Your task to perform on an android device: Go to Wikipedia Image 0: 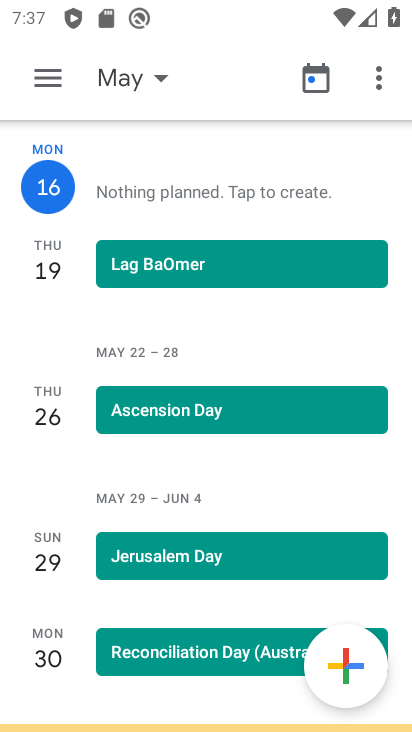
Step 0: press home button
Your task to perform on an android device: Go to Wikipedia Image 1: 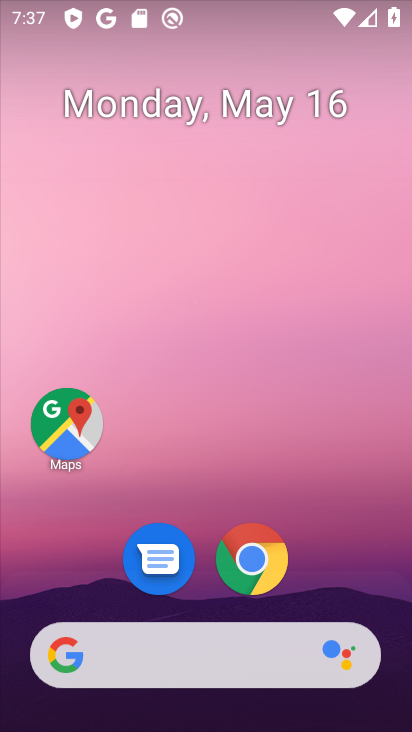
Step 1: drag from (344, 511) to (379, 162)
Your task to perform on an android device: Go to Wikipedia Image 2: 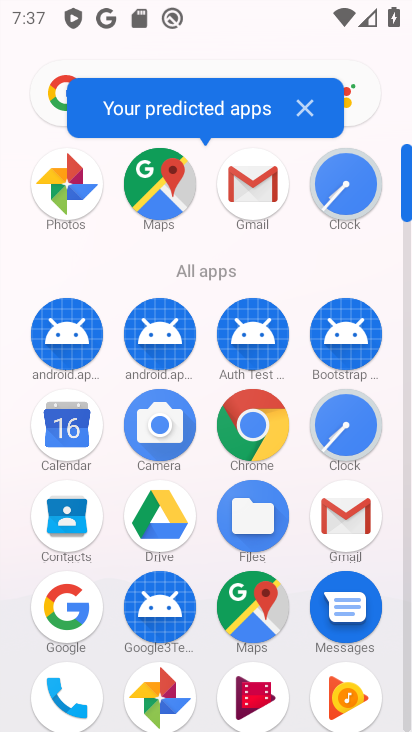
Step 2: click (260, 411)
Your task to perform on an android device: Go to Wikipedia Image 3: 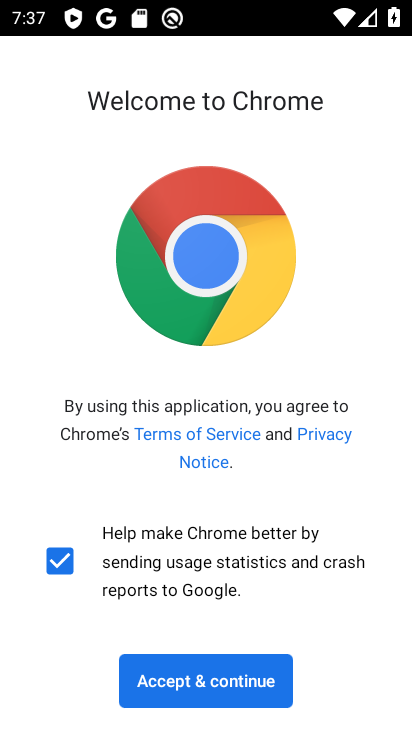
Step 3: click (227, 667)
Your task to perform on an android device: Go to Wikipedia Image 4: 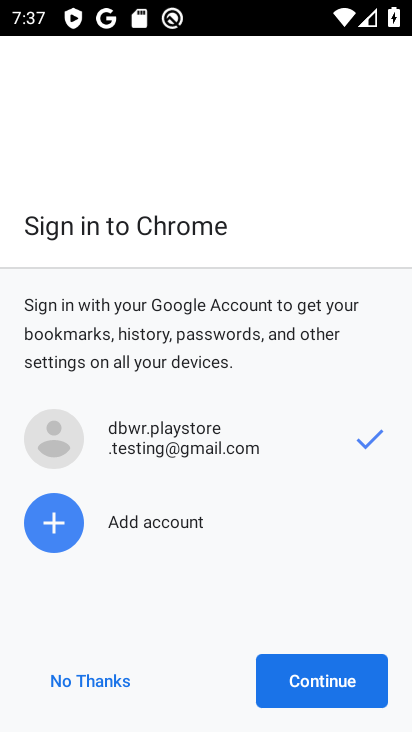
Step 4: click (264, 678)
Your task to perform on an android device: Go to Wikipedia Image 5: 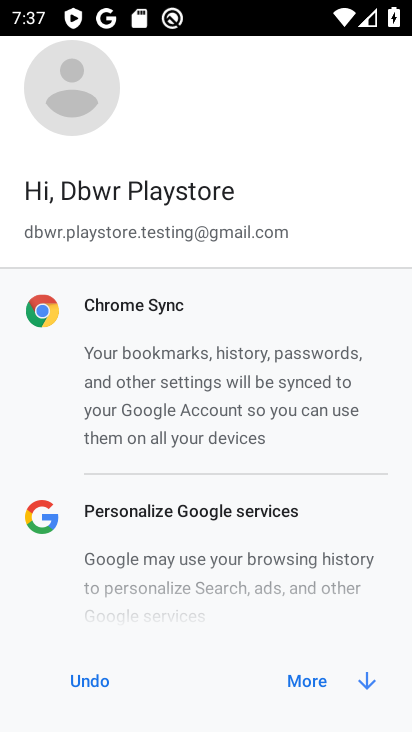
Step 5: click (323, 678)
Your task to perform on an android device: Go to Wikipedia Image 6: 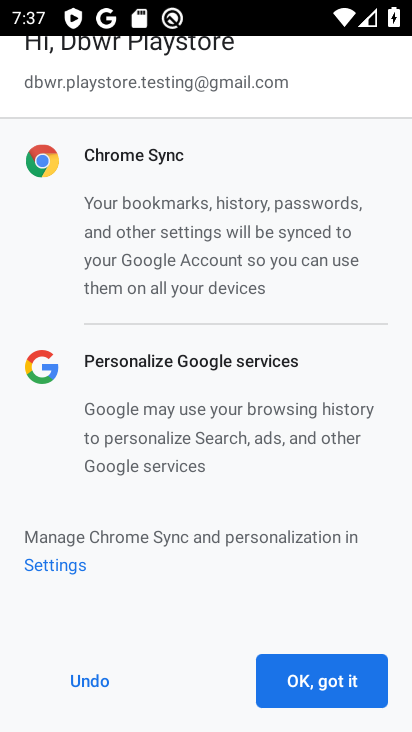
Step 6: click (323, 678)
Your task to perform on an android device: Go to Wikipedia Image 7: 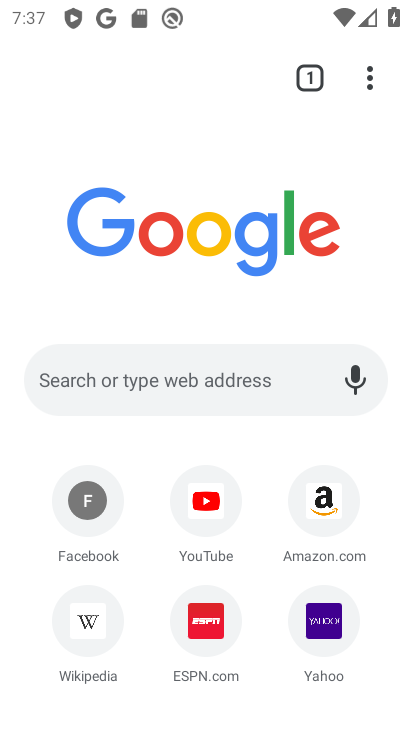
Step 7: click (95, 623)
Your task to perform on an android device: Go to Wikipedia Image 8: 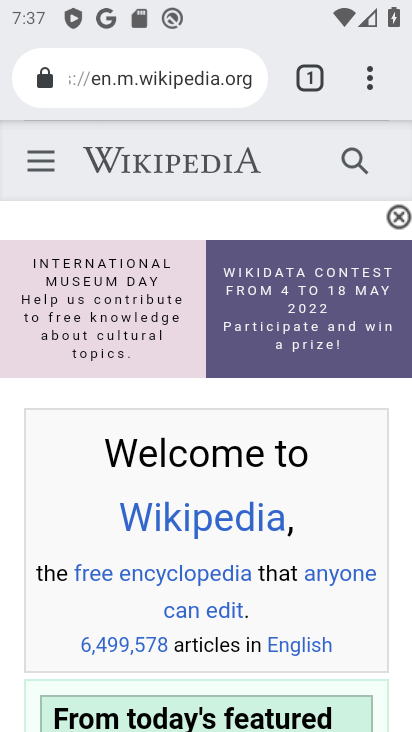
Step 8: task complete